Your task to perform on an android device: Search for "asus rog" on costco, select the first entry, and add it to the cart. Image 0: 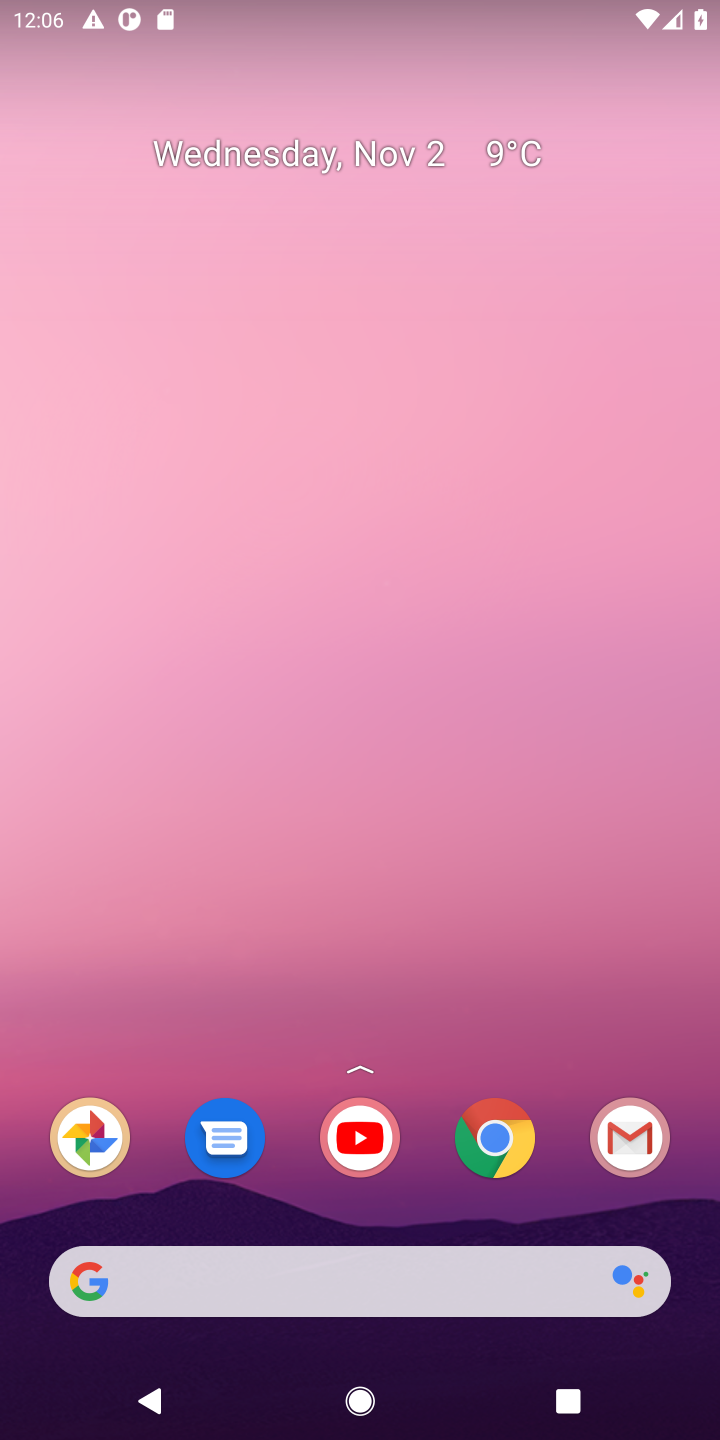
Step 0: click (332, 1259)
Your task to perform on an android device: Search for "asus rog" on costco, select the first entry, and add it to the cart. Image 1: 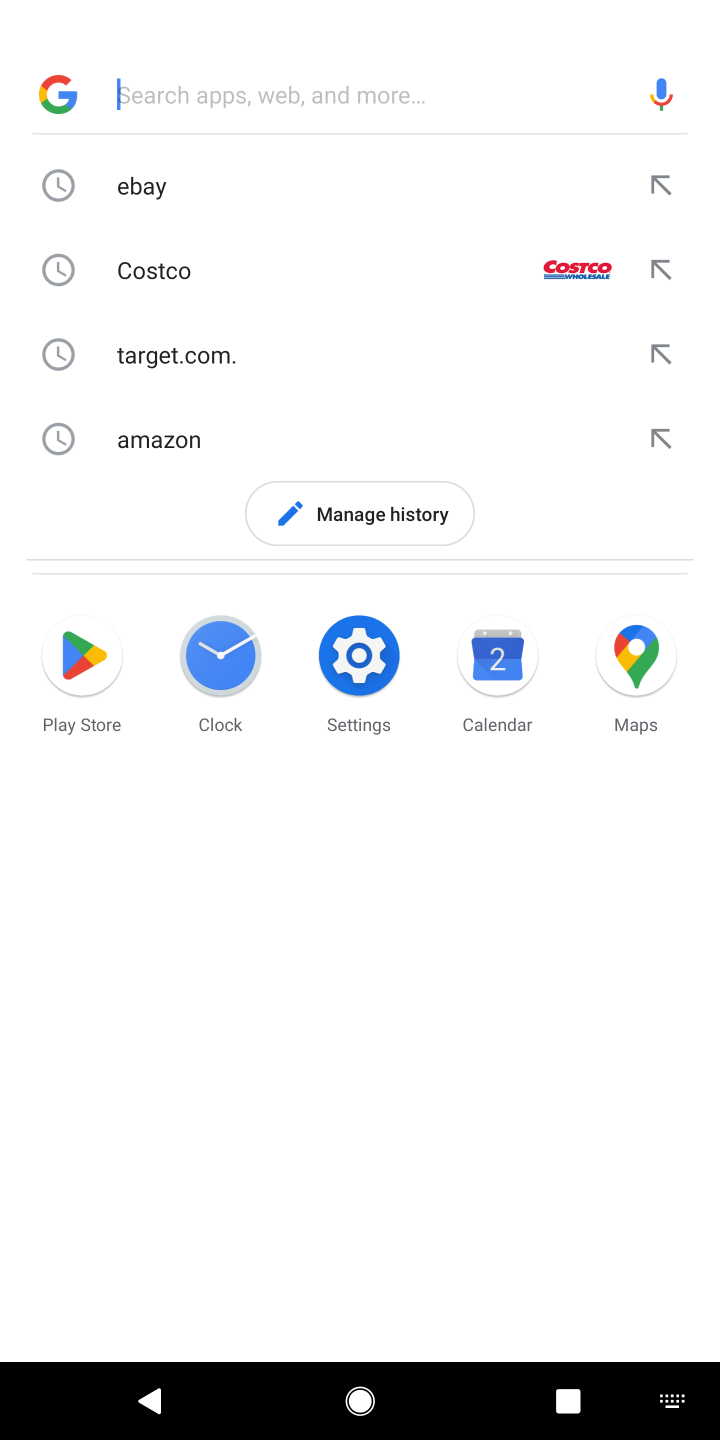
Step 1: click (172, 259)
Your task to perform on an android device: Search for "asus rog" on costco, select the first entry, and add it to the cart. Image 2: 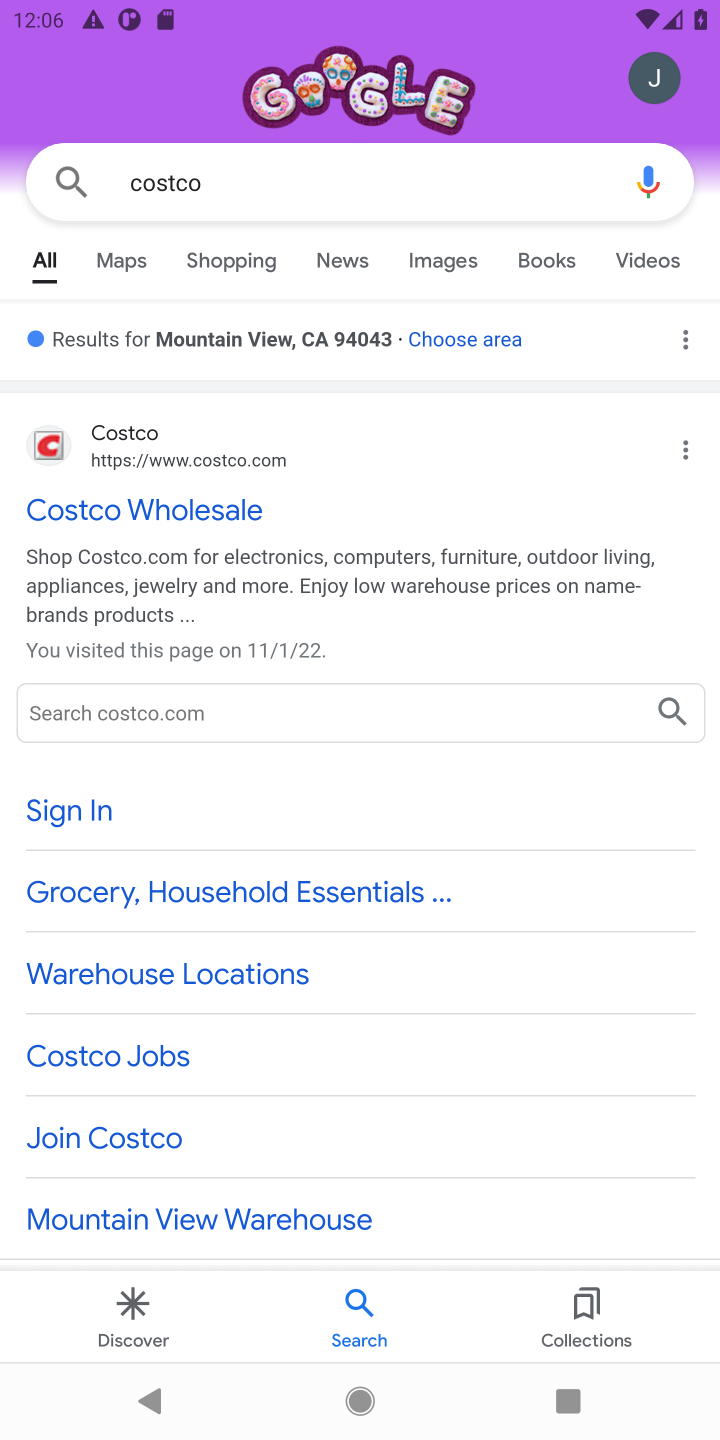
Step 2: click (132, 515)
Your task to perform on an android device: Search for "asus rog" on costco, select the first entry, and add it to the cart. Image 3: 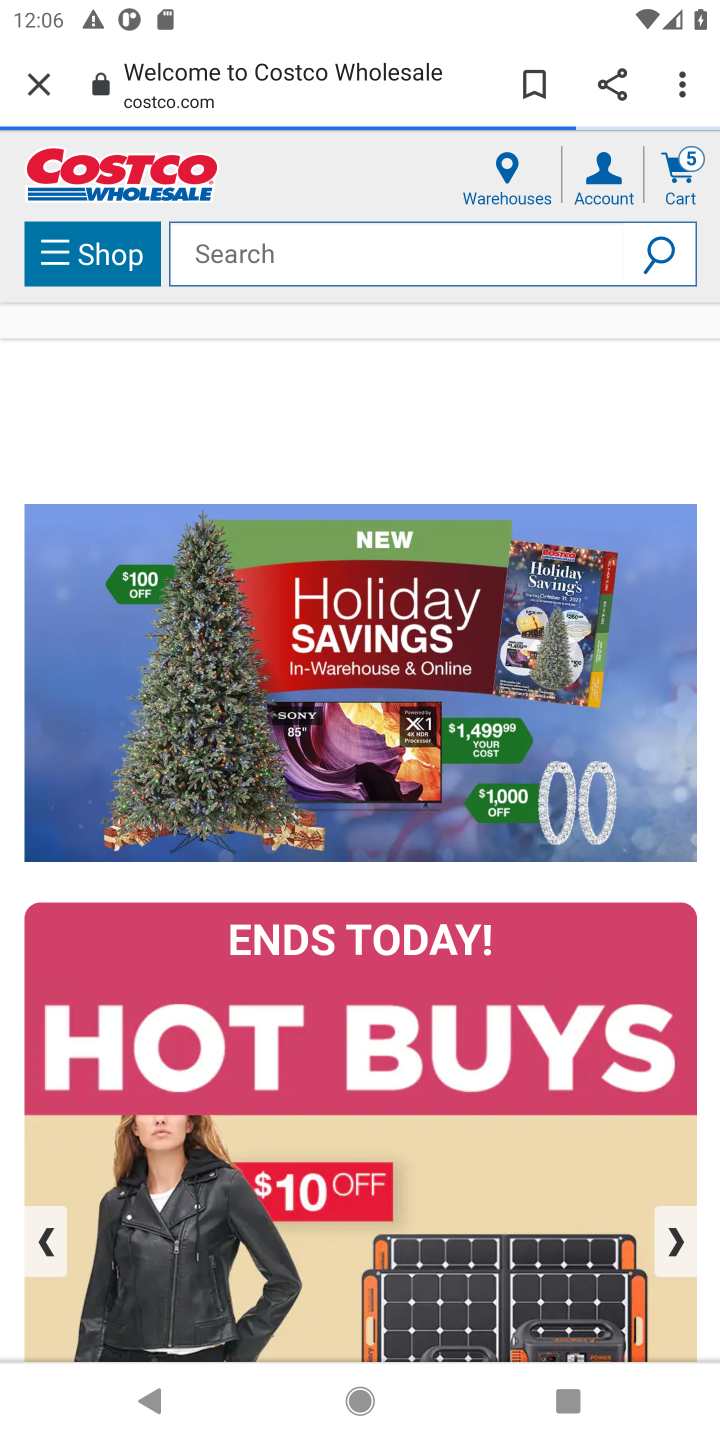
Step 3: click (258, 266)
Your task to perform on an android device: Search for "asus rog" on costco, select the first entry, and add it to the cart. Image 4: 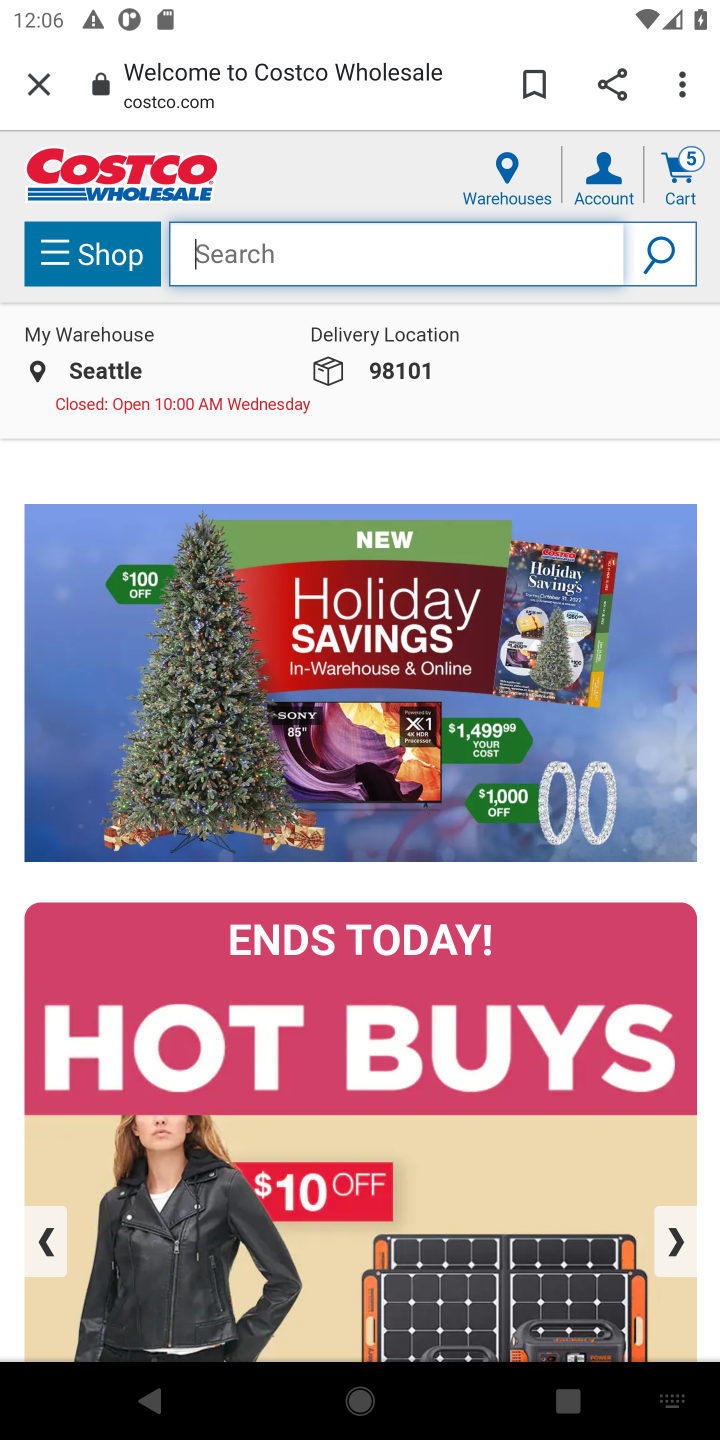
Step 4: type "asus rog"
Your task to perform on an android device: Search for "asus rog" on costco, select the first entry, and add it to the cart. Image 5: 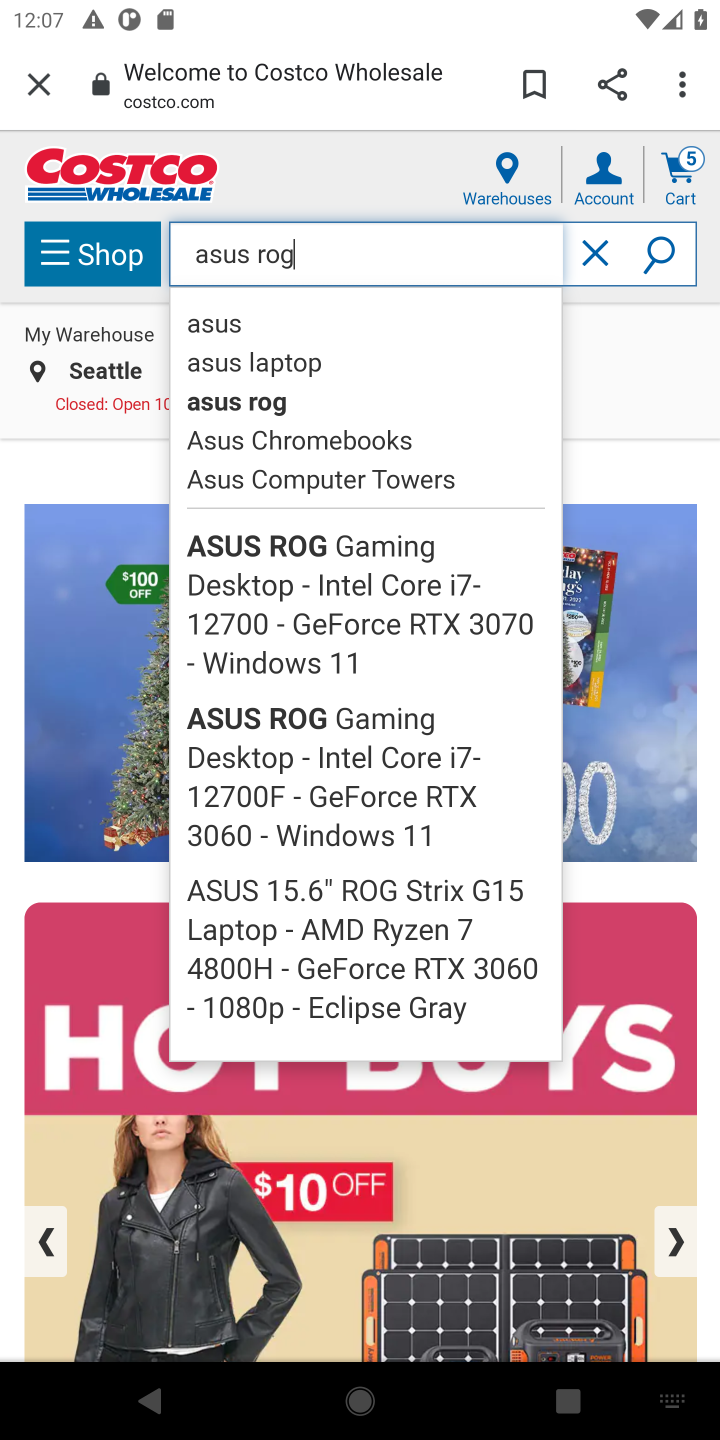
Step 5: click (296, 408)
Your task to perform on an android device: Search for "asus rog" on costco, select the first entry, and add it to the cart. Image 6: 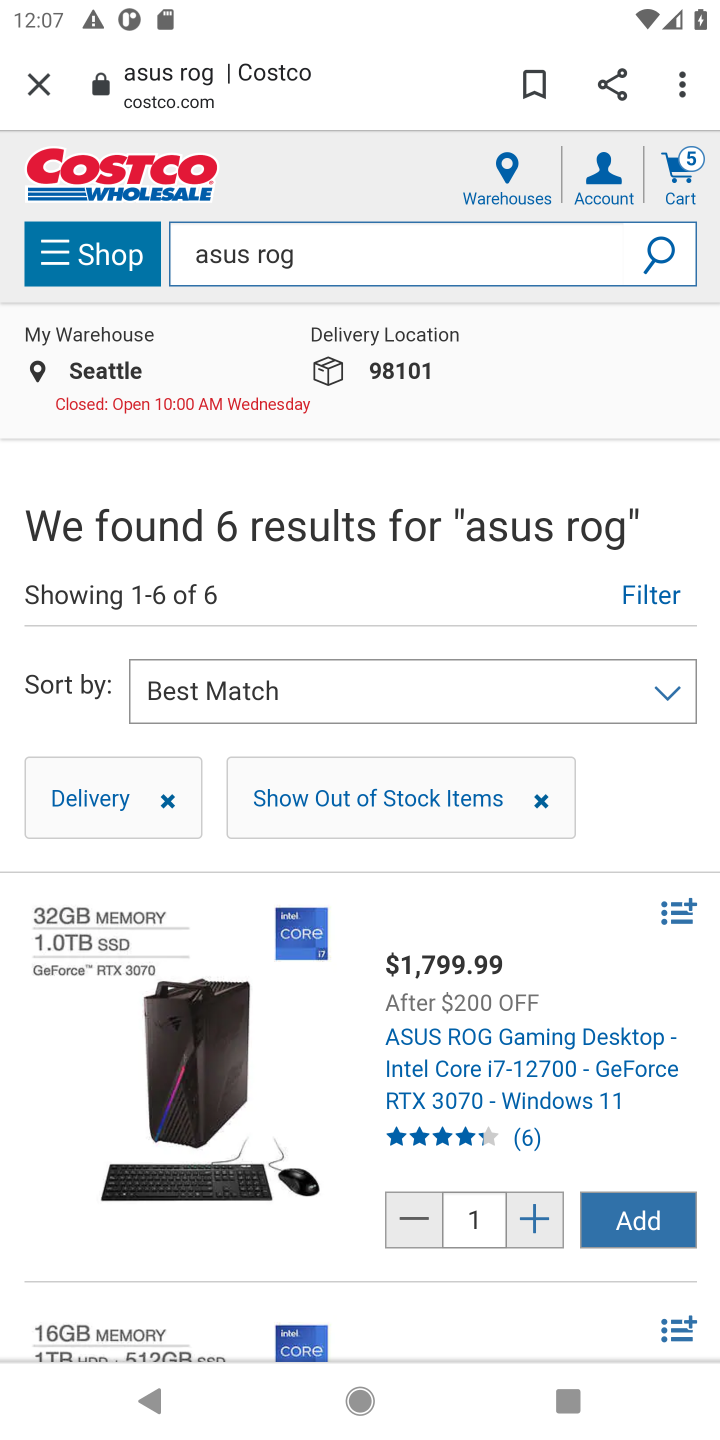
Step 6: drag from (583, 898) to (586, 569)
Your task to perform on an android device: Search for "asus rog" on costco, select the first entry, and add it to the cart. Image 7: 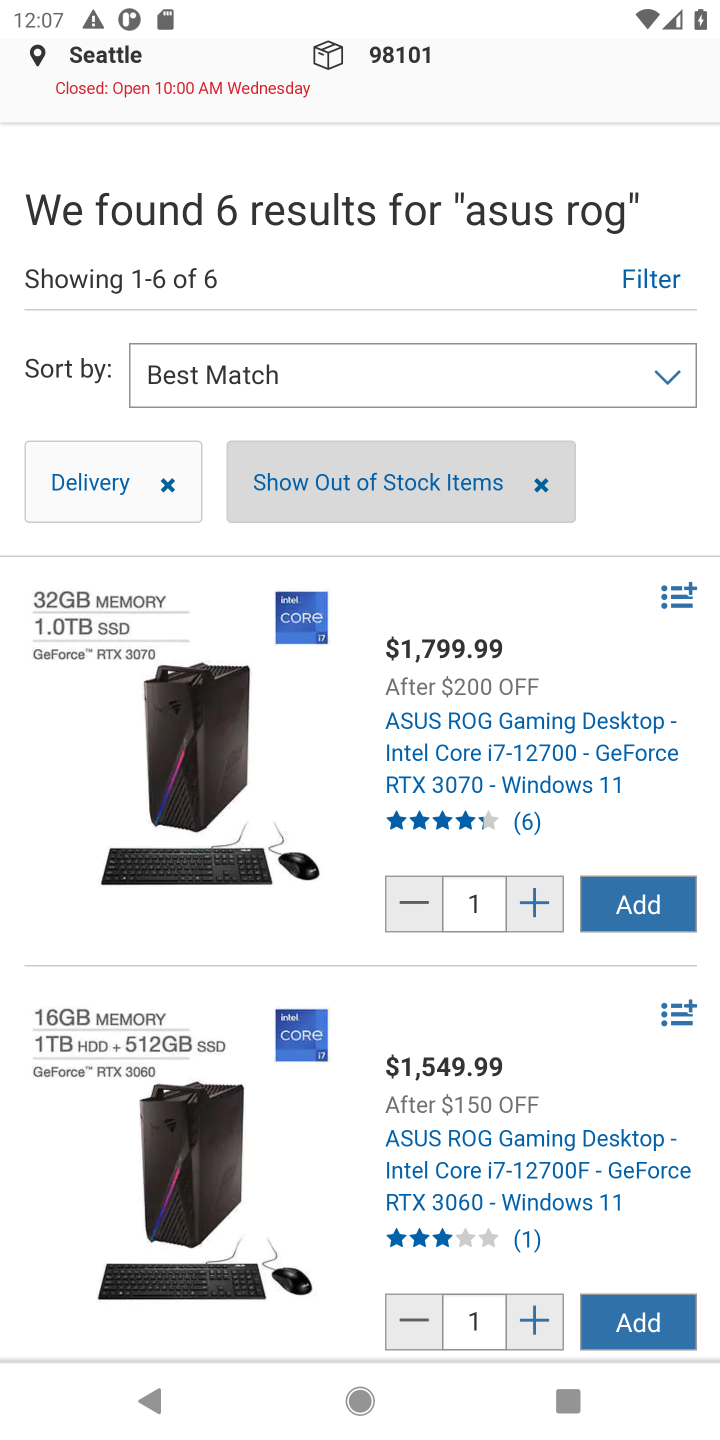
Step 7: click (605, 889)
Your task to perform on an android device: Search for "asus rog" on costco, select the first entry, and add it to the cart. Image 8: 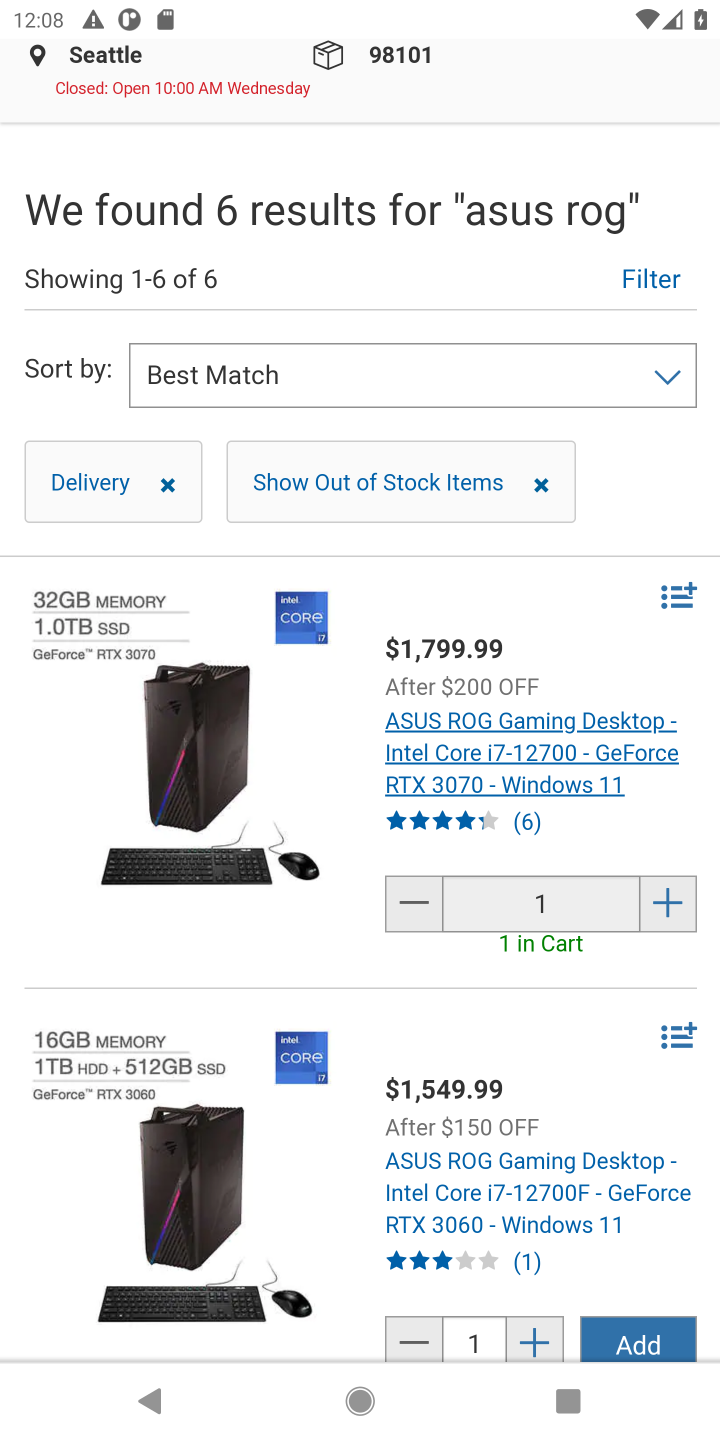
Step 8: task complete